Your task to perform on an android device: set an alarm Image 0: 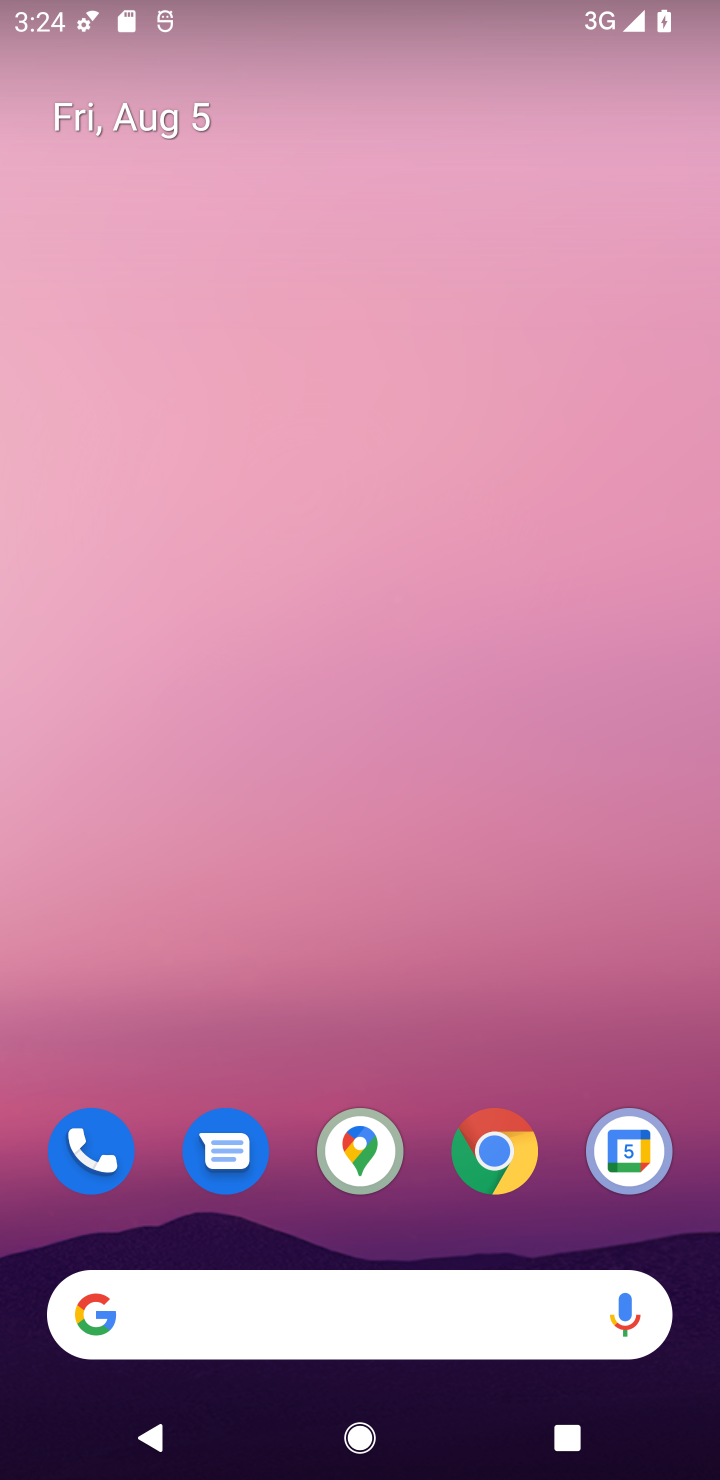
Step 0: drag from (425, 1106) to (436, 520)
Your task to perform on an android device: set an alarm Image 1: 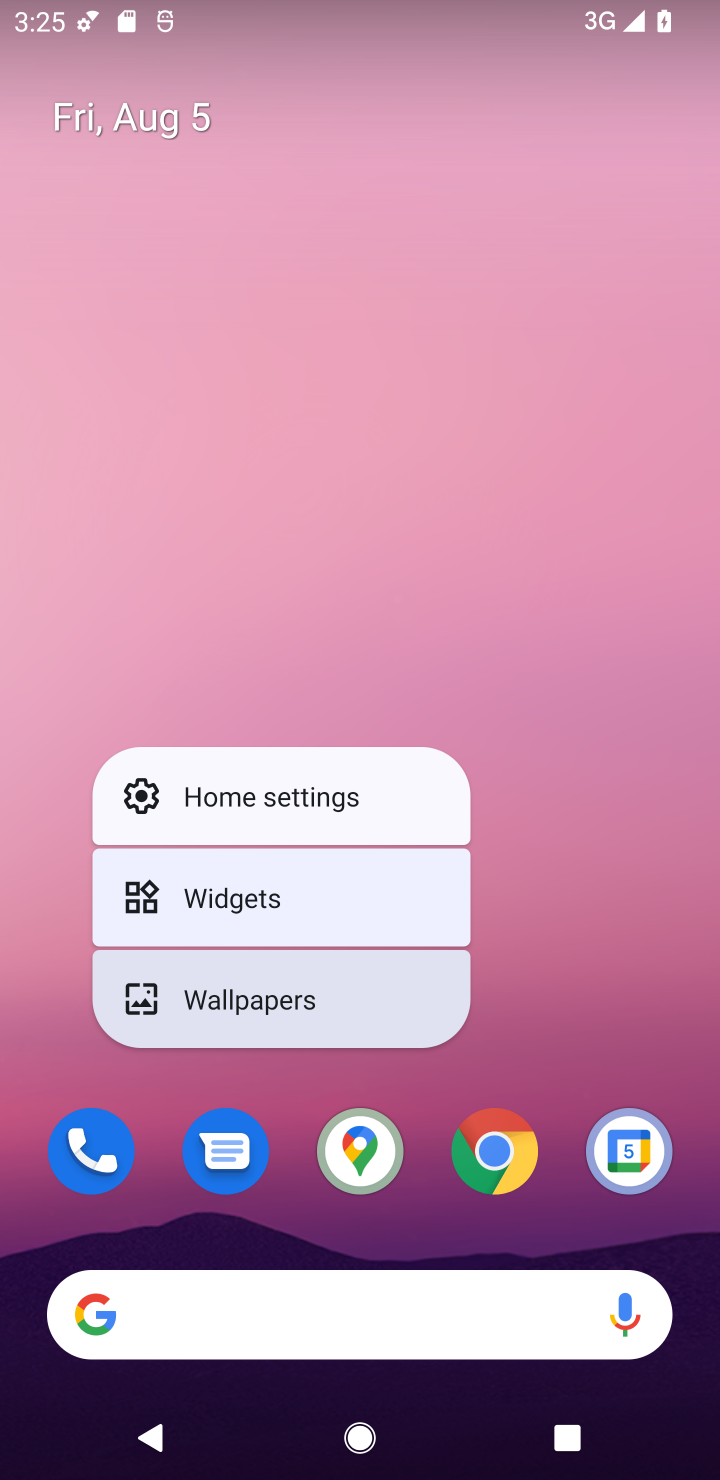
Step 1: click (602, 904)
Your task to perform on an android device: set an alarm Image 2: 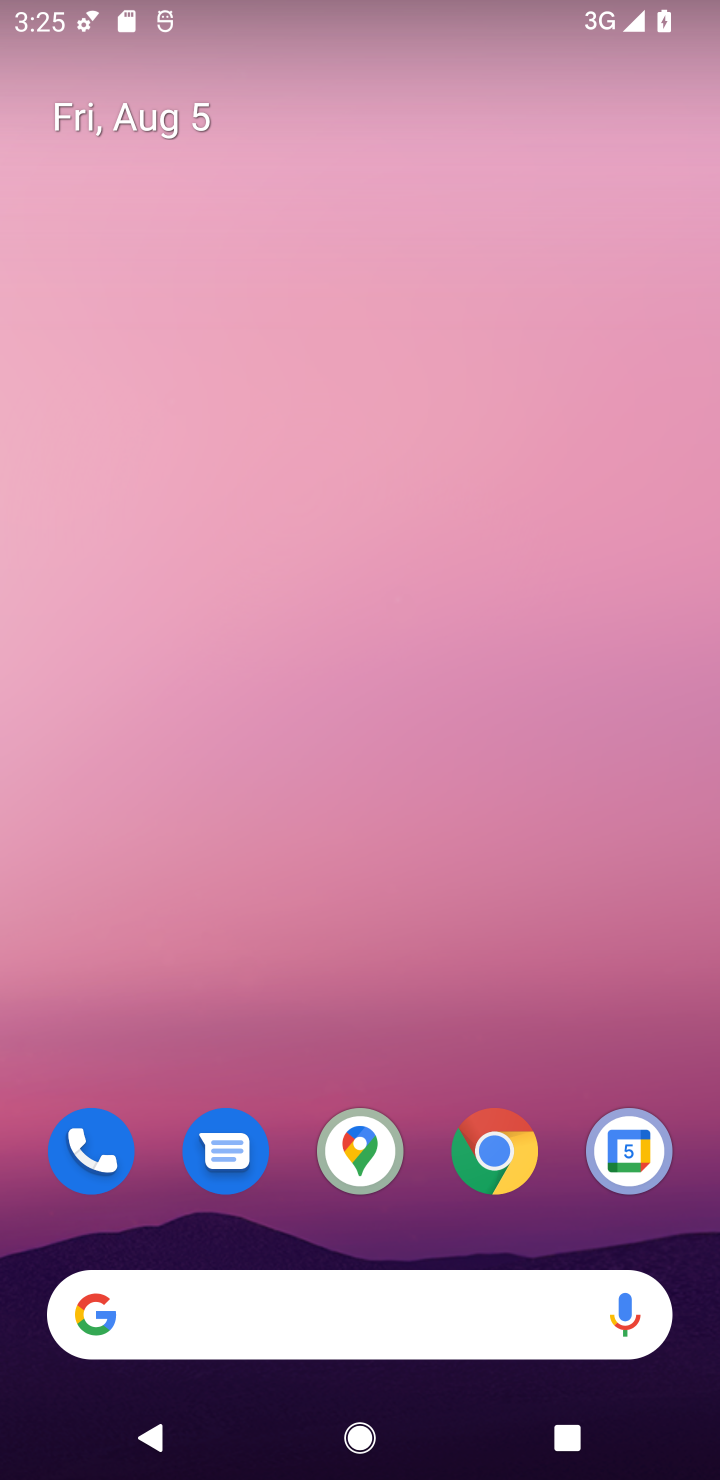
Step 2: drag from (420, 1079) to (572, 3)
Your task to perform on an android device: set an alarm Image 3: 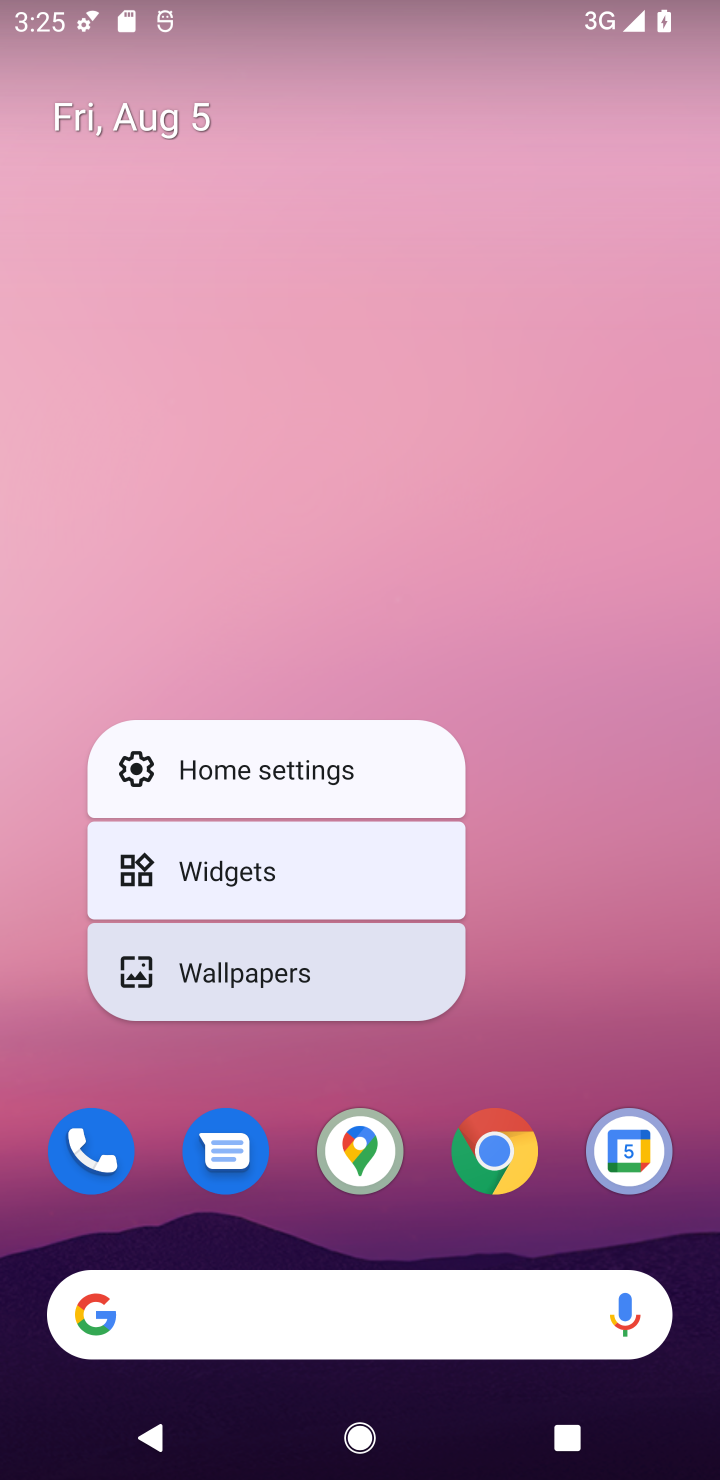
Step 3: drag from (430, 1124) to (475, 98)
Your task to perform on an android device: set an alarm Image 4: 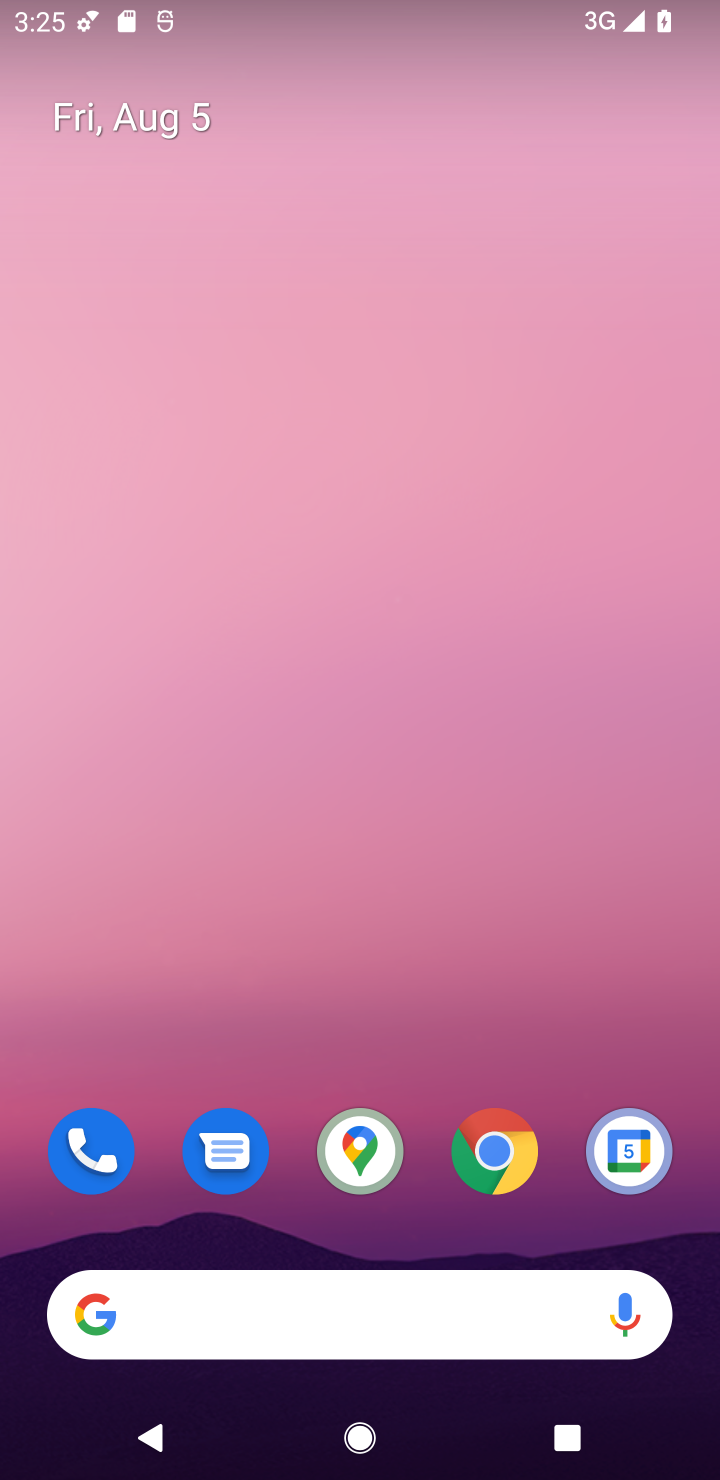
Step 4: drag from (441, 1217) to (495, 243)
Your task to perform on an android device: set an alarm Image 5: 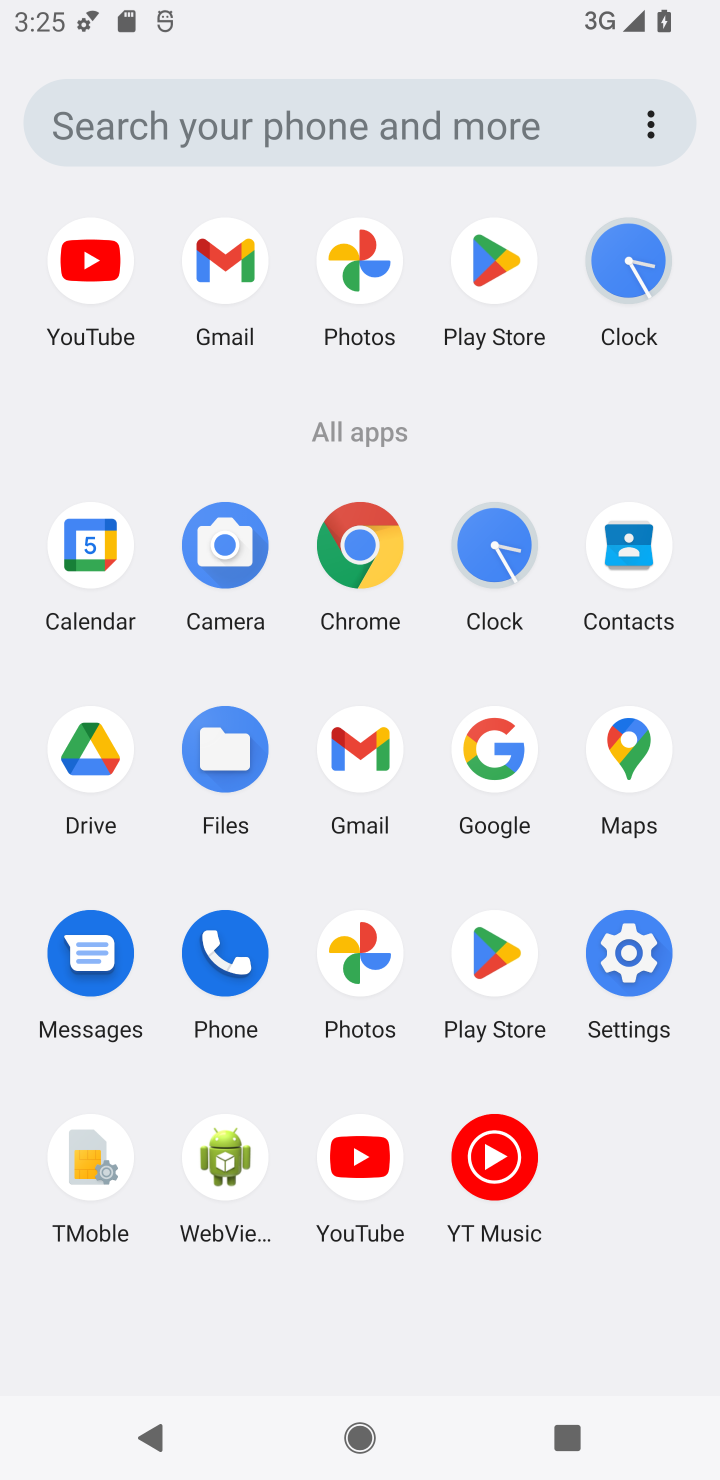
Step 5: click (487, 558)
Your task to perform on an android device: set an alarm Image 6: 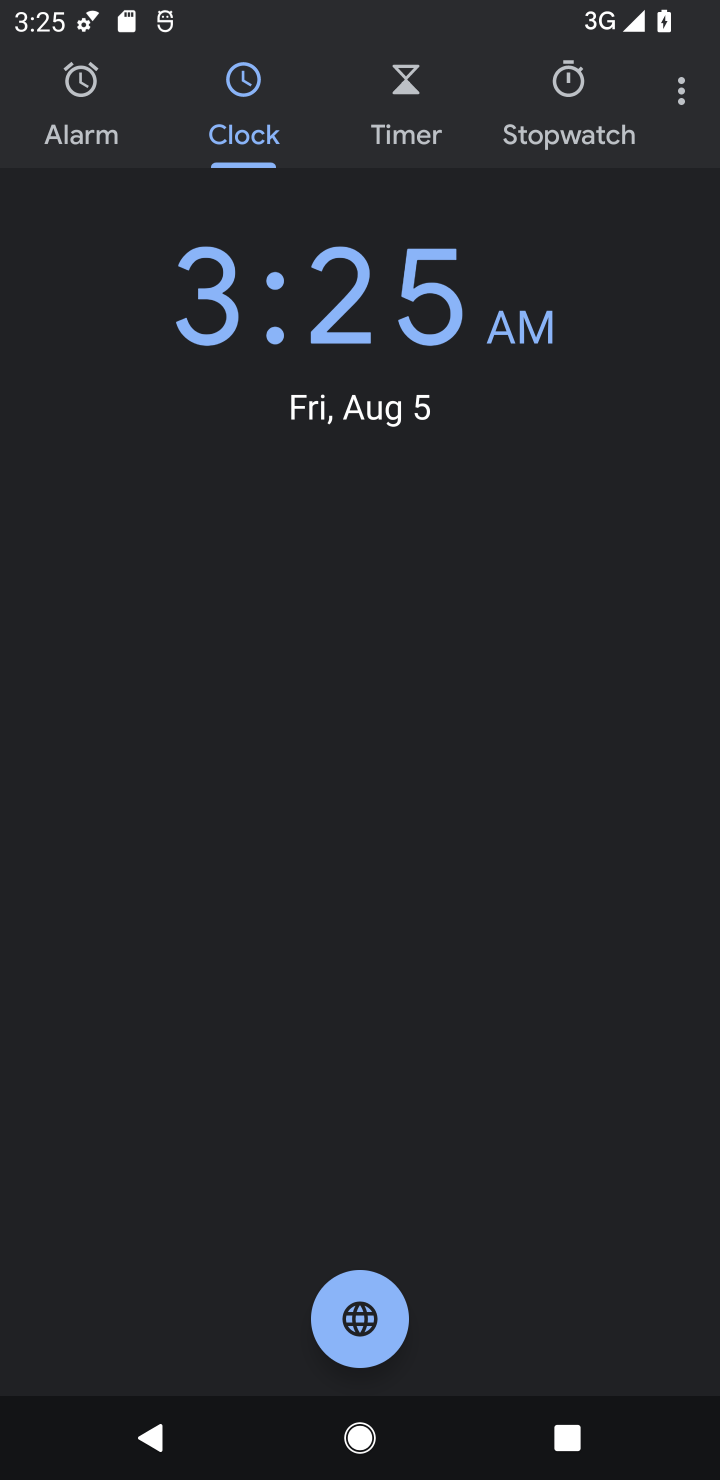
Step 6: click (101, 128)
Your task to perform on an android device: set an alarm Image 7: 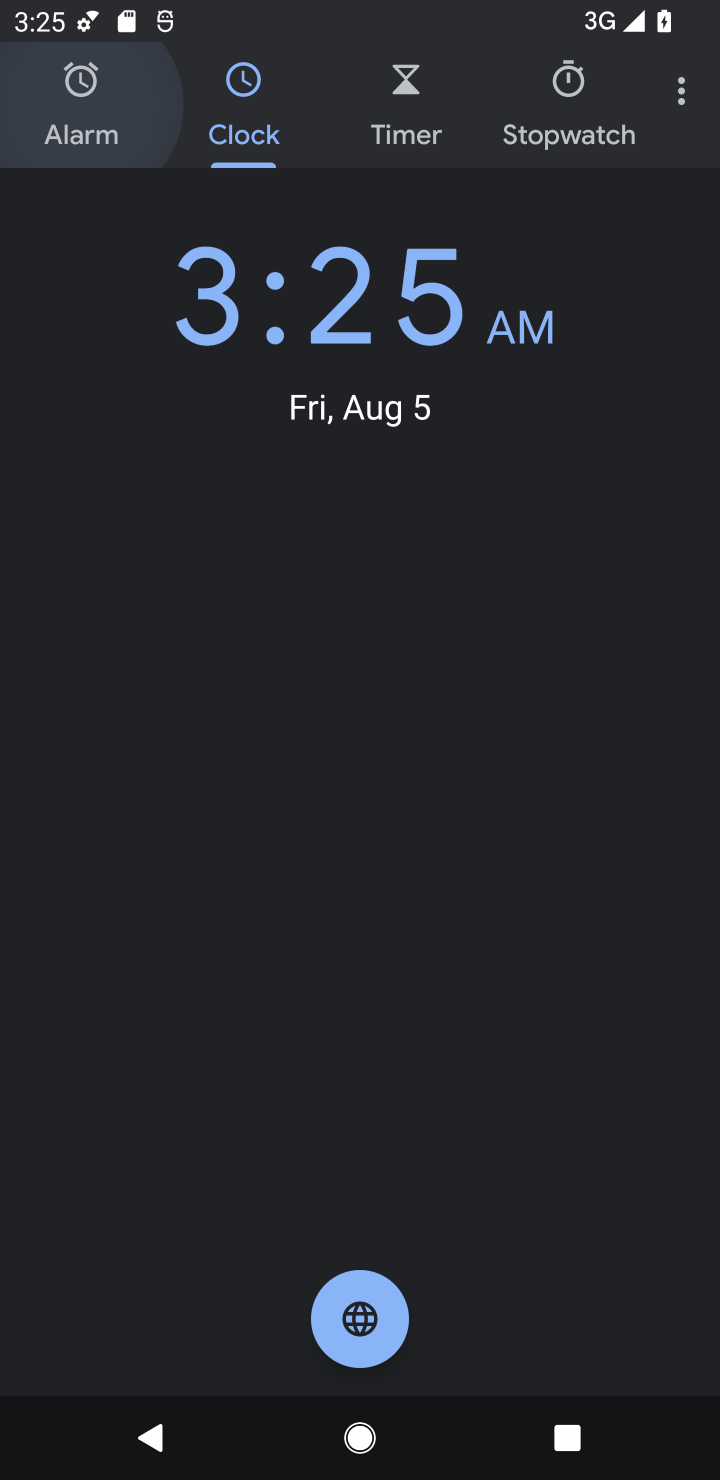
Step 7: click (106, 80)
Your task to perform on an android device: set an alarm Image 8: 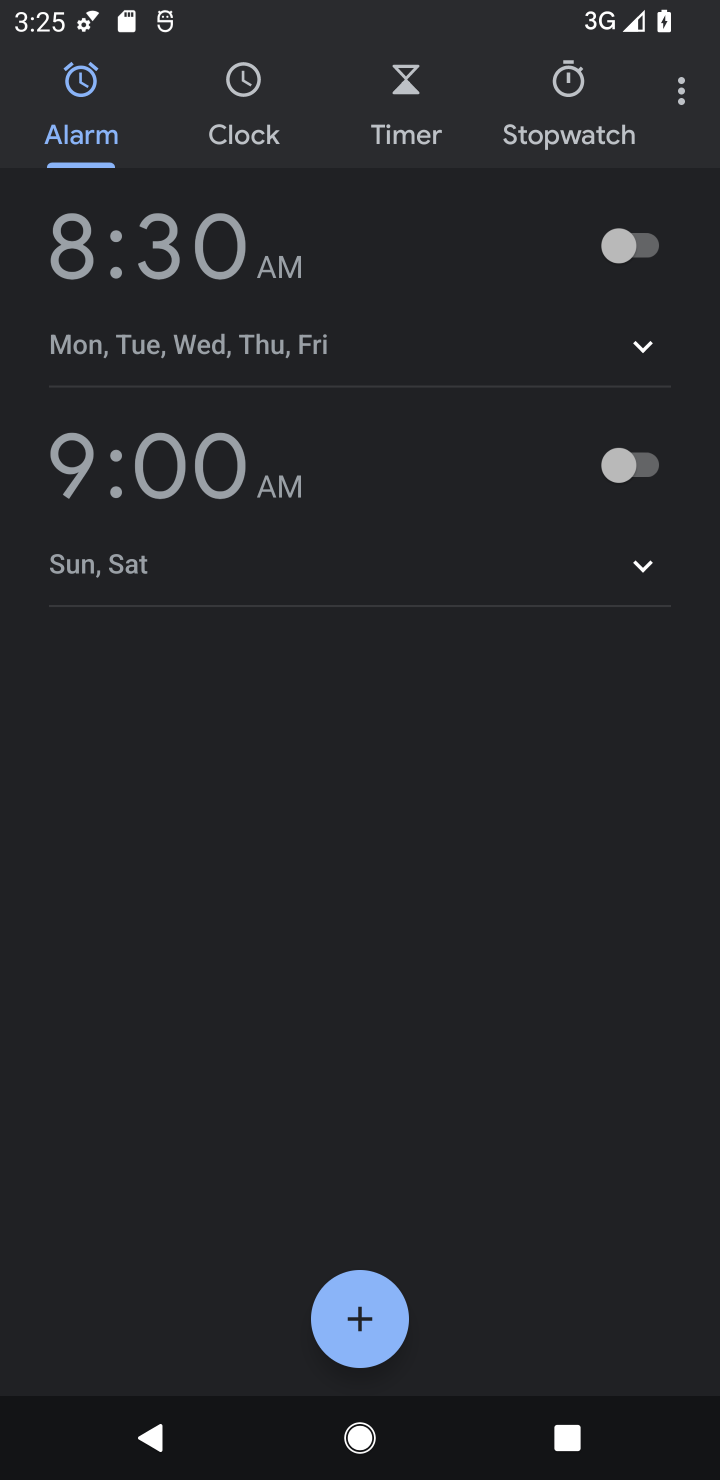
Step 8: click (631, 465)
Your task to perform on an android device: set an alarm Image 9: 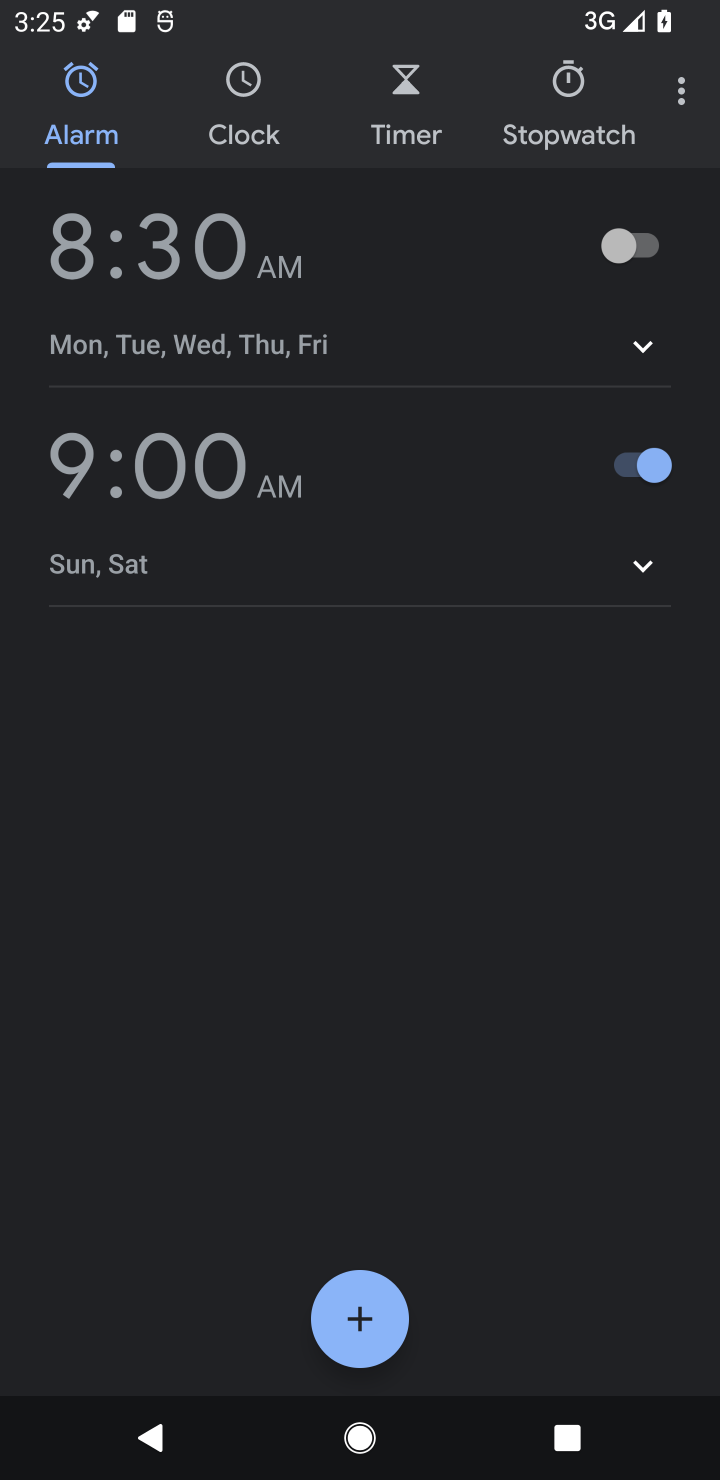
Step 9: task complete